Your task to perform on an android device: turn off picture-in-picture Image 0: 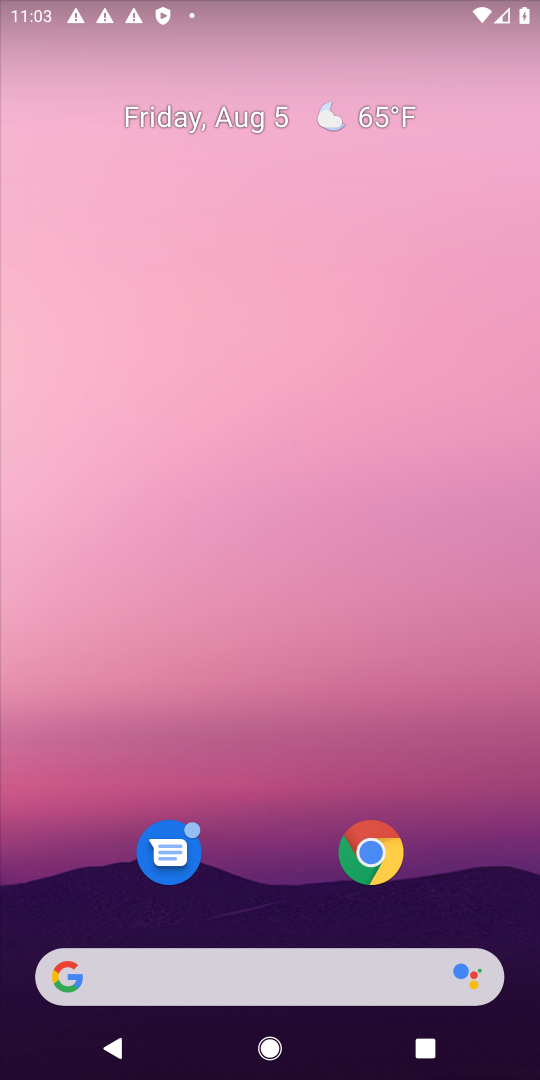
Step 0: drag from (381, 990) to (251, 280)
Your task to perform on an android device: turn off picture-in-picture Image 1: 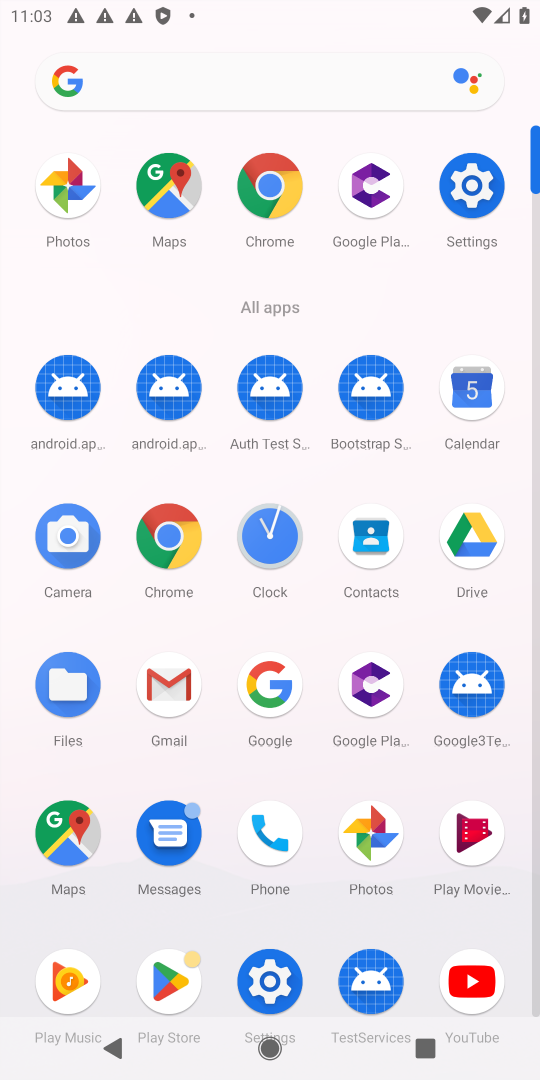
Step 1: click (476, 978)
Your task to perform on an android device: turn off picture-in-picture Image 2: 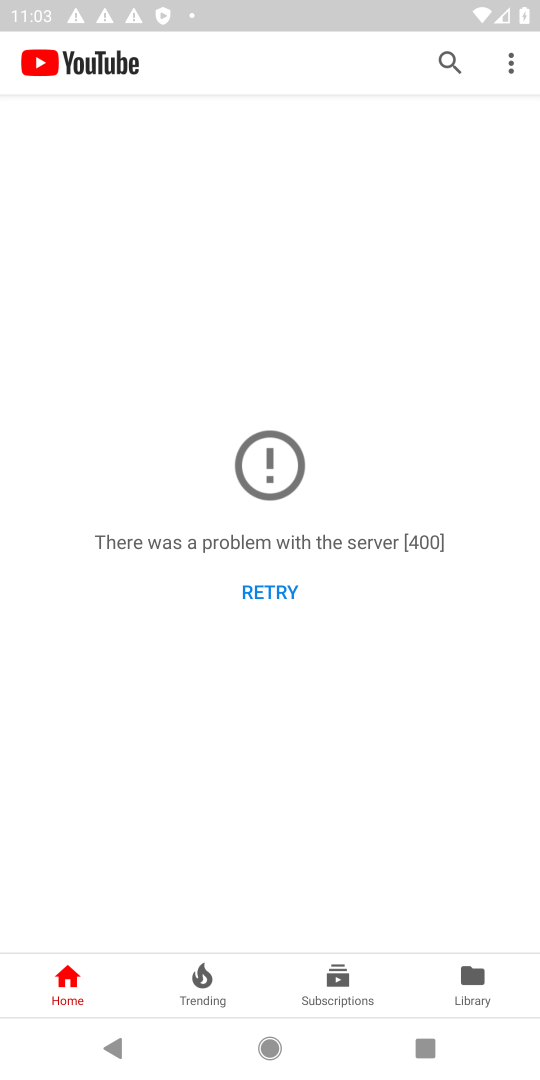
Step 2: click (511, 68)
Your task to perform on an android device: turn off picture-in-picture Image 3: 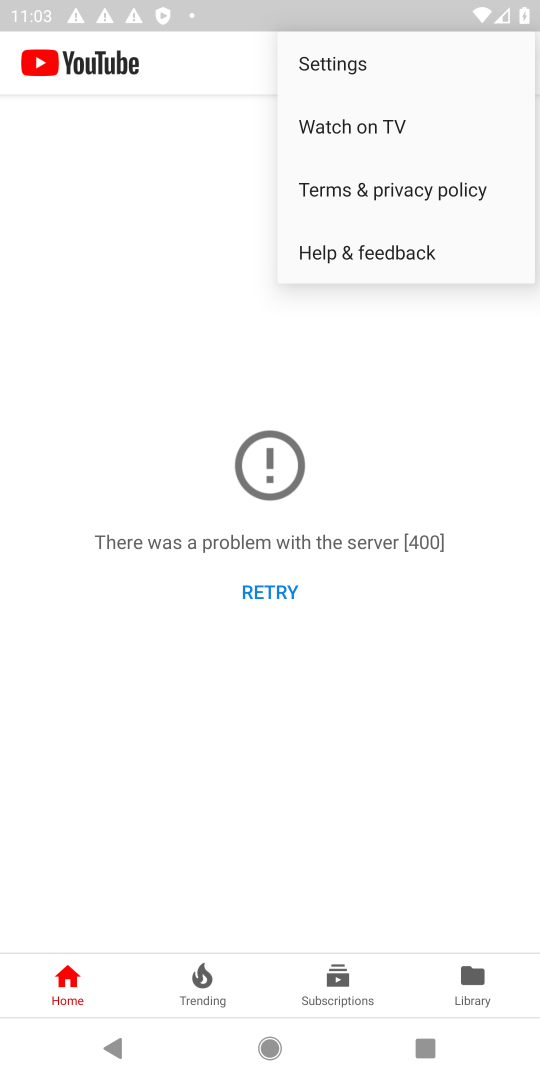
Step 3: click (364, 63)
Your task to perform on an android device: turn off picture-in-picture Image 4: 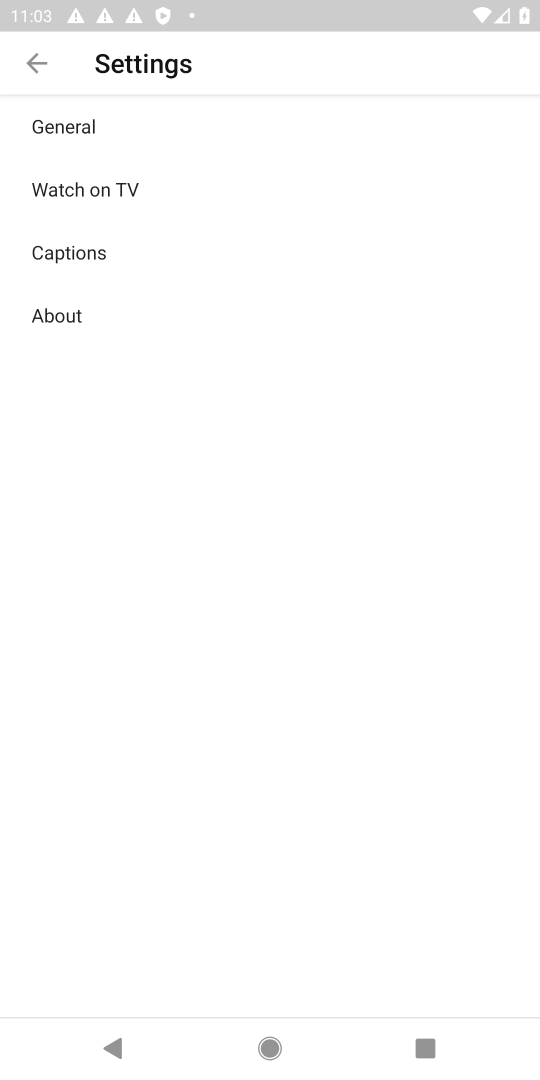
Step 4: click (98, 134)
Your task to perform on an android device: turn off picture-in-picture Image 5: 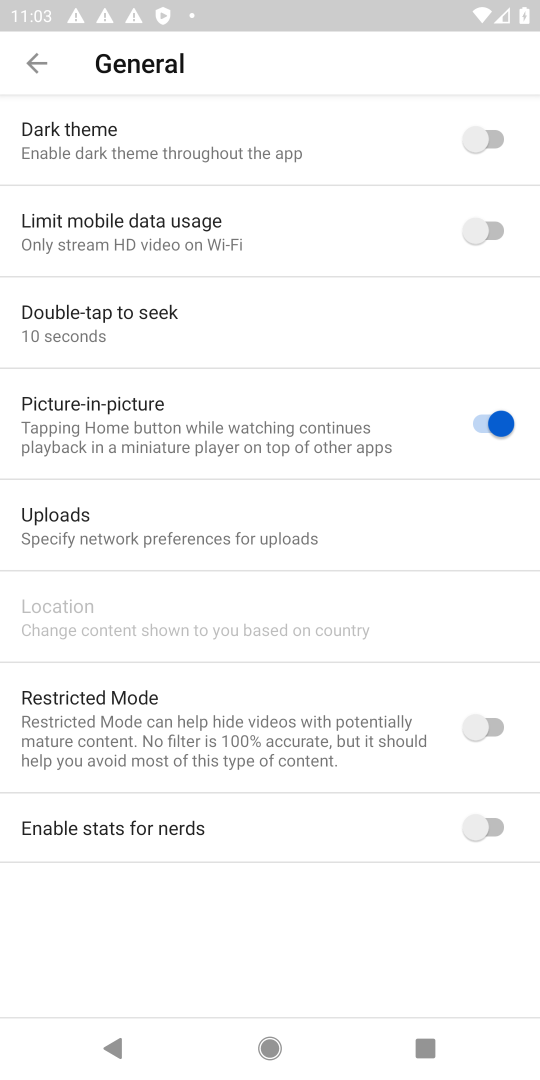
Step 5: click (446, 406)
Your task to perform on an android device: turn off picture-in-picture Image 6: 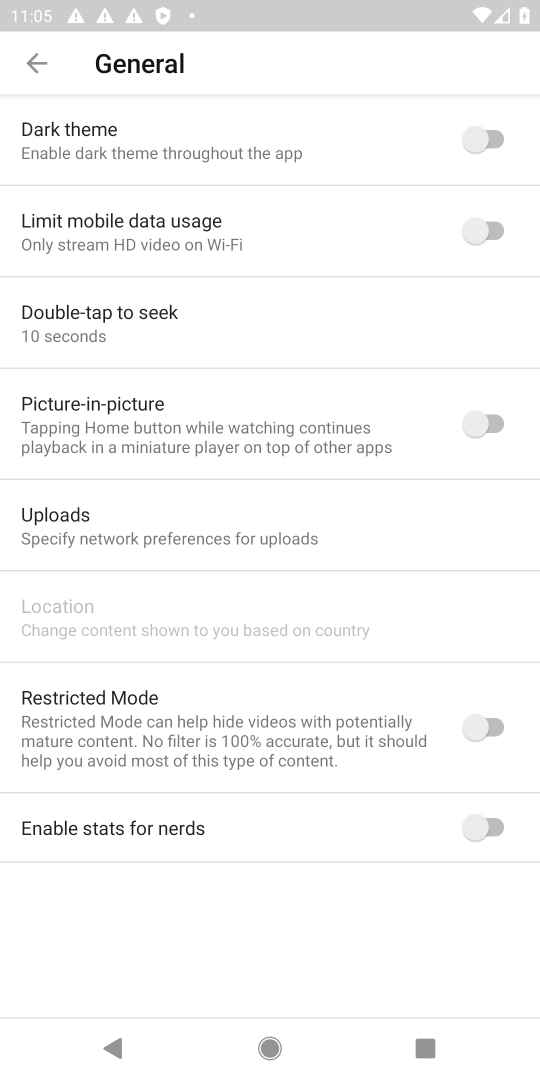
Step 6: task complete